Your task to perform on an android device: Do I have any events tomorrow? Image 0: 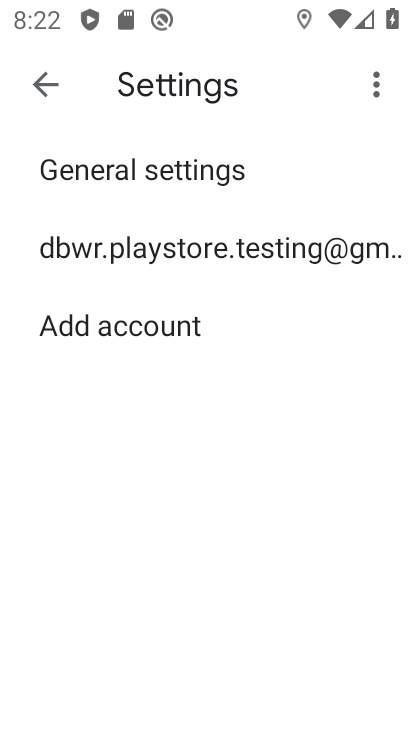
Step 0: press home button
Your task to perform on an android device: Do I have any events tomorrow? Image 1: 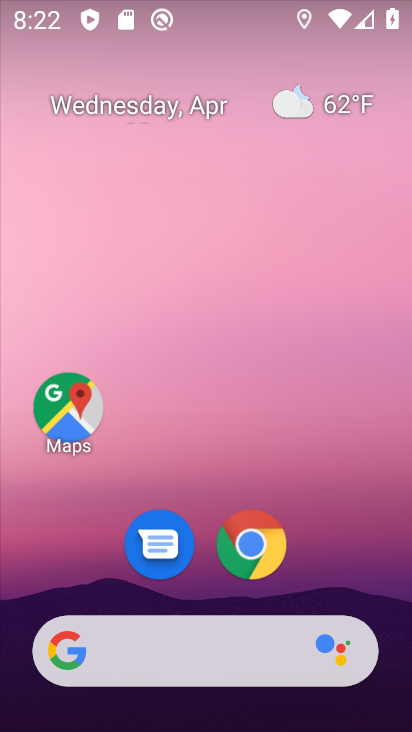
Step 1: drag from (328, 555) to (285, 115)
Your task to perform on an android device: Do I have any events tomorrow? Image 2: 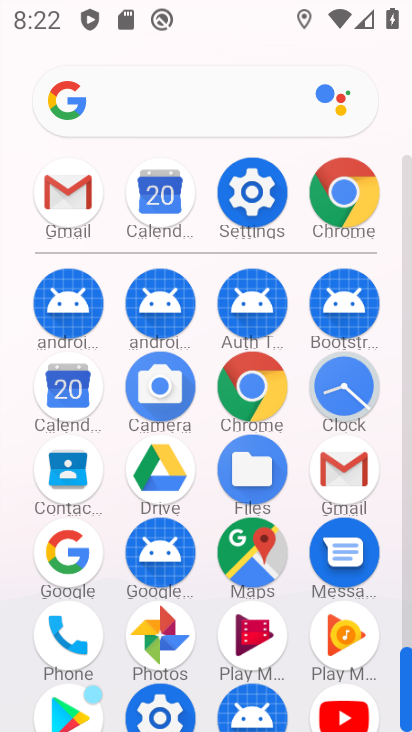
Step 2: click (159, 204)
Your task to perform on an android device: Do I have any events tomorrow? Image 3: 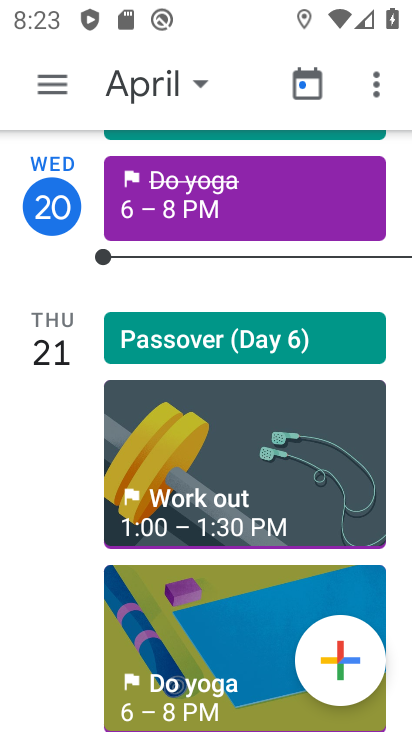
Step 3: click (248, 485)
Your task to perform on an android device: Do I have any events tomorrow? Image 4: 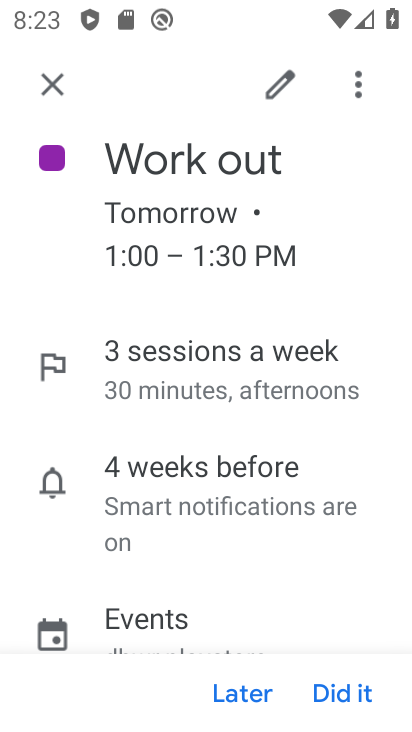
Step 4: drag from (207, 627) to (187, 343)
Your task to perform on an android device: Do I have any events tomorrow? Image 5: 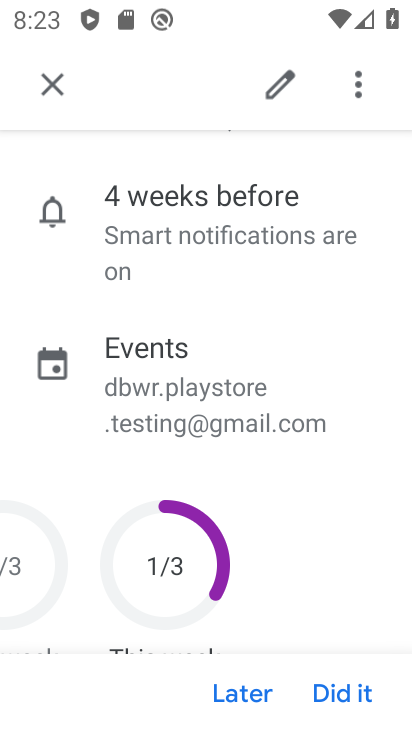
Step 5: click (53, 85)
Your task to perform on an android device: Do I have any events tomorrow? Image 6: 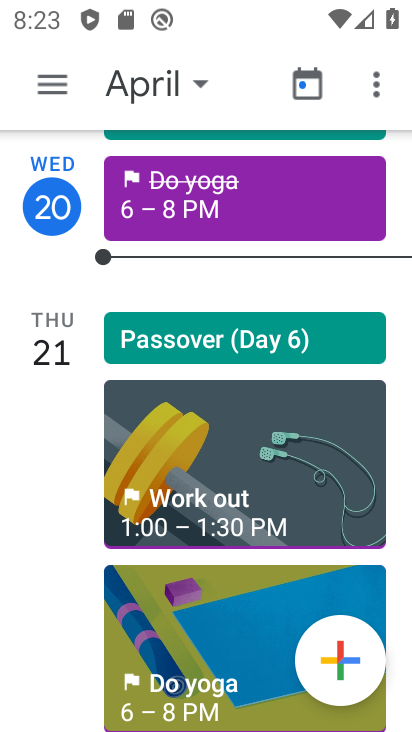
Step 6: click (162, 638)
Your task to perform on an android device: Do I have any events tomorrow? Image 7: 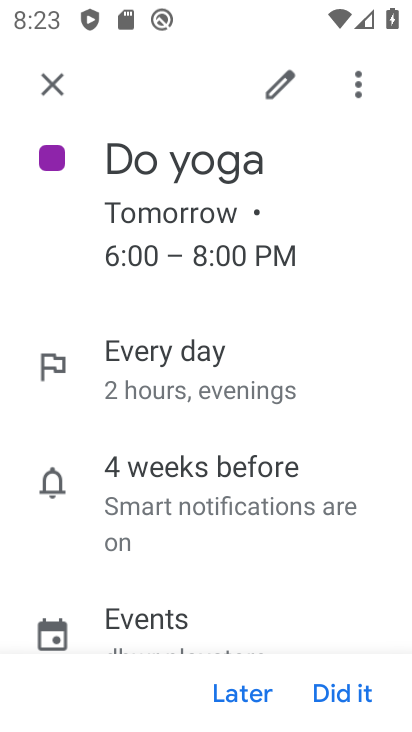
Step 7: task complete